Your task to perform on an android device: Open the phone app and click the voicemail tab. Image 0: 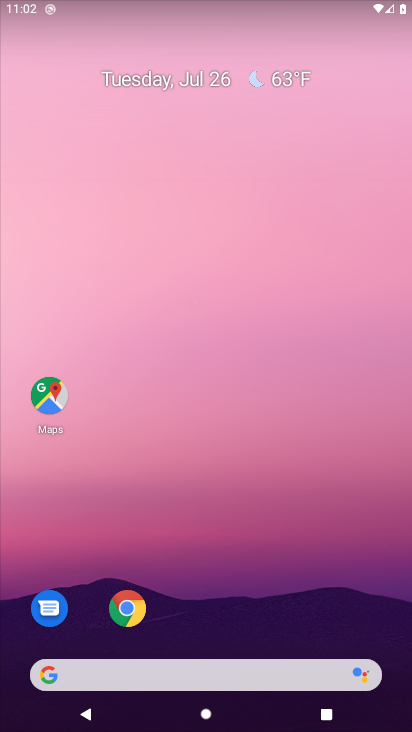
Step 0: press home button
Your task to perform on an android device: Open the phone app and click the voicemail tab. Image 1: 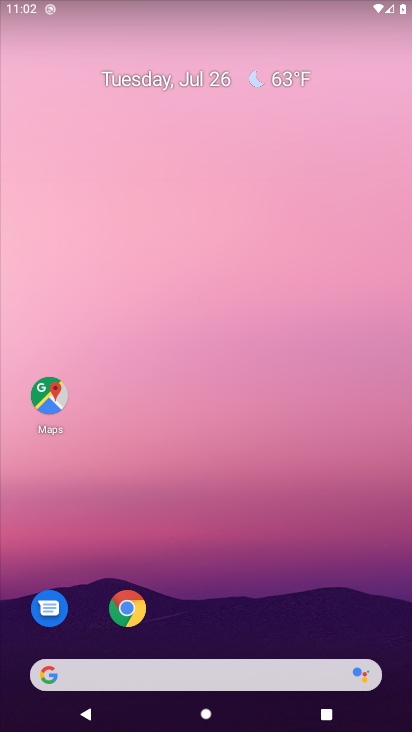
Step 1: drag from (309, 588) to (301, 111)
Your task to perform on an android device: Open the phone app and click the voicemail tab. Image 2: 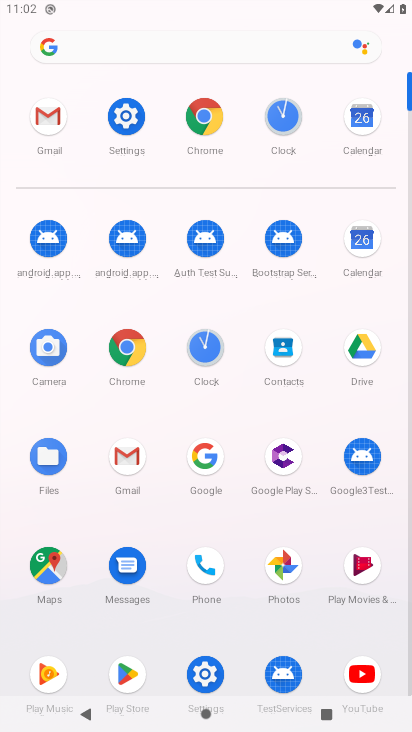
Step 2: click (204, 564)
Your task to perform on an android device: Open the phone app and click the voicemail tab. Image 3: 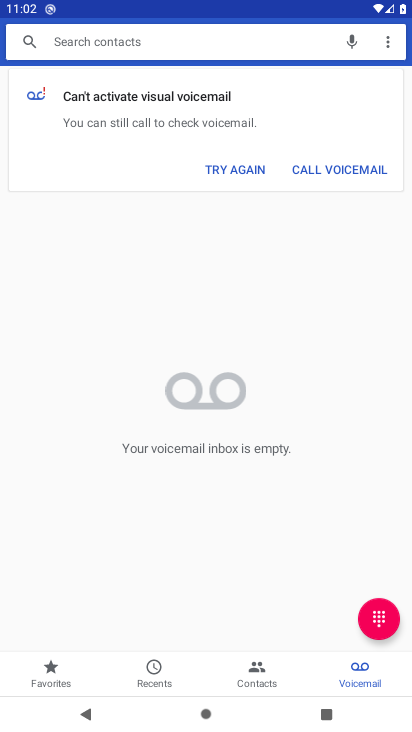
Step 3: task complete